Your task to perform on an android device: turn on javascript in the chrome app Image 0: 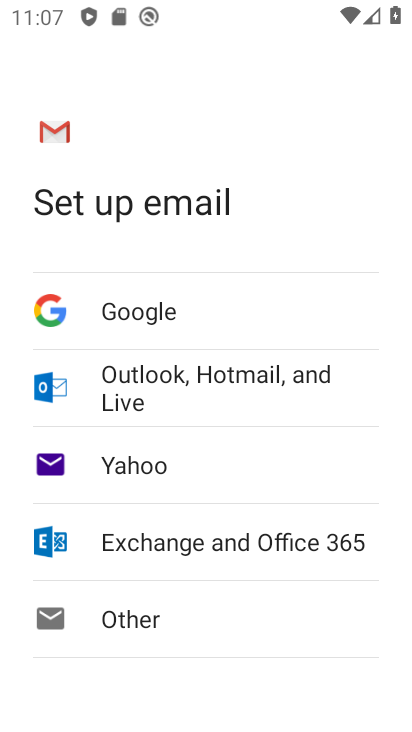
Step 0: press home button
Your task to perform on an android device: turn on javascript in the chrome app Image 1: 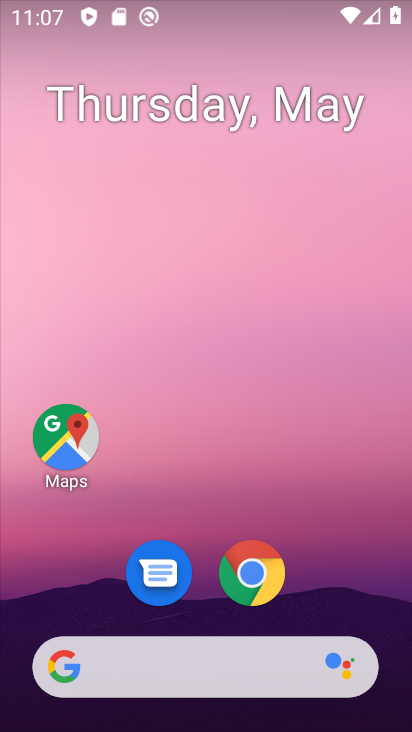
Step 1: click (278, 590)
Your task to perform on an android device: turn on javascript in the chrome app Image 2: 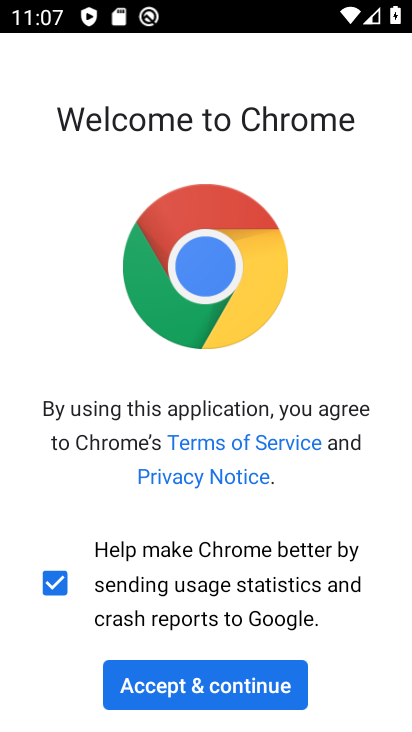
Step 2: click (257, 701)
Your task to perform on an android device: turn on javascript in the chrome app Image 3: 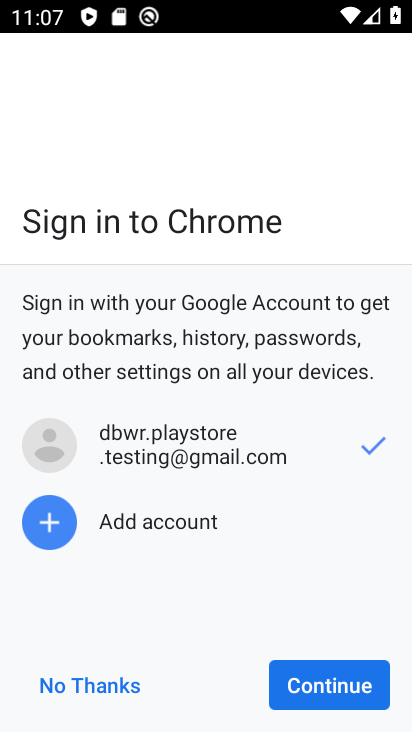
Step 3: click (325, 686)
Your task to perform on an android device: turn on javascript in the chrome app Image 4: 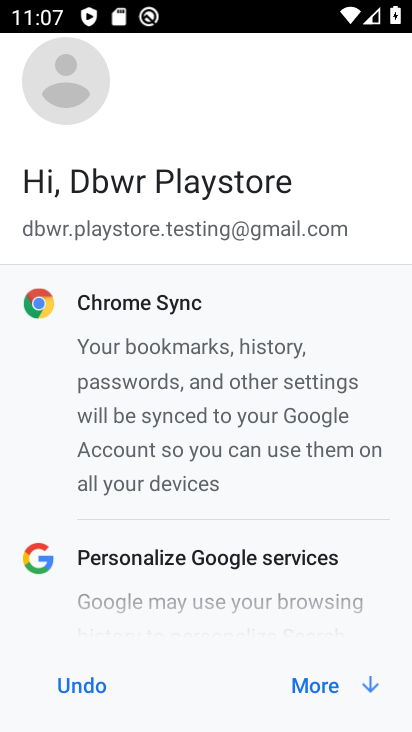
Step 4: click (326, 686)
Your task to perform on an android device: turn on javascript in the chrome app Image 5: 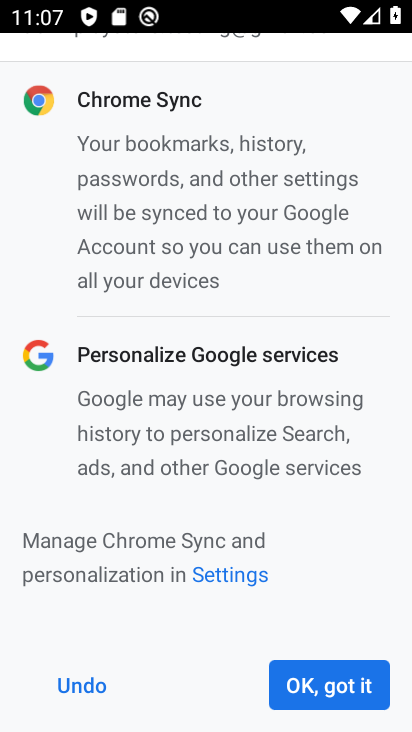
Step 5: click (326, 687)
Your task to perform on an android device: turn on javascript in the chrome app Image 6: 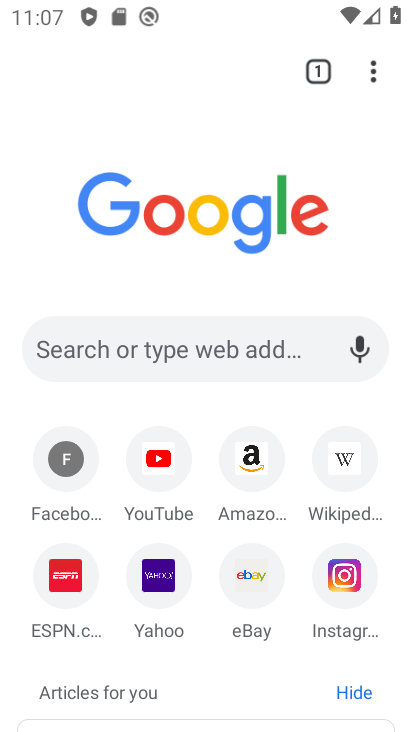
Step 6: drag from (397, 81) to (307, 620)
Your task to perform on an android device: turn on javascript in the chrome app Image 7: 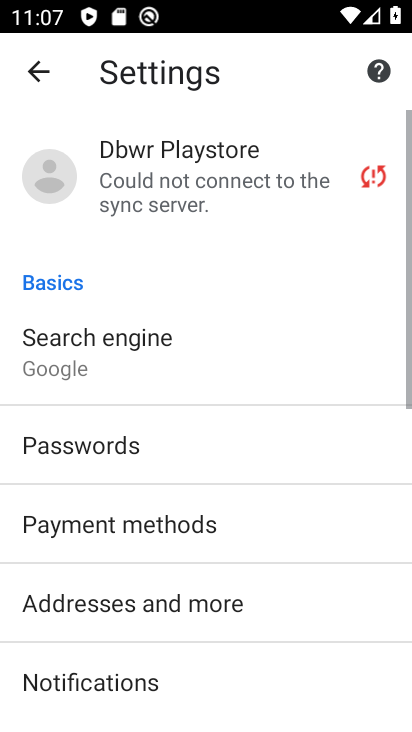
Step 7: drag from (209, 644) to (321, 260)
Your task to perform on an android device: turn on javascript in the chrome app Image 8: 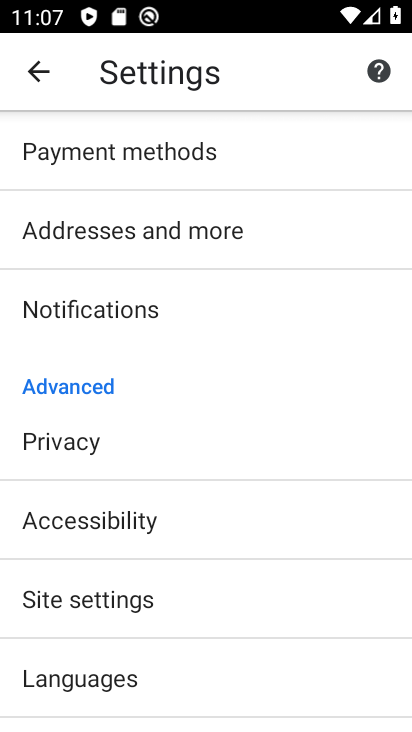
Step 8: click (286, 605)
Your task to perform on an android device: turn on javascript in the chrome app Image 9: 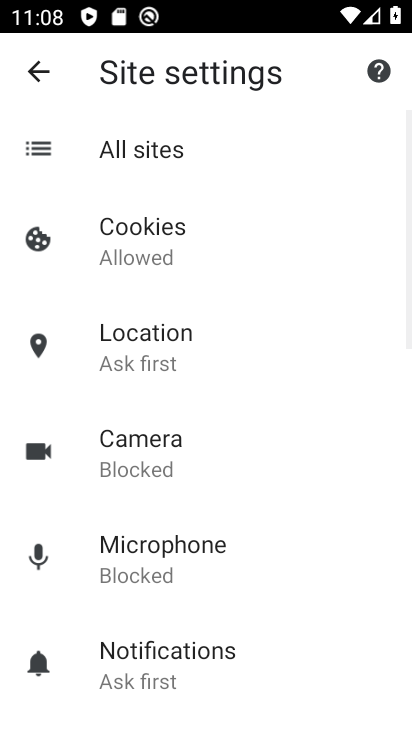
Step 9: drag from (282, 658) to (355, 328)
Your task to perform on an android device: turn on javascript in the chrome app Image 10: 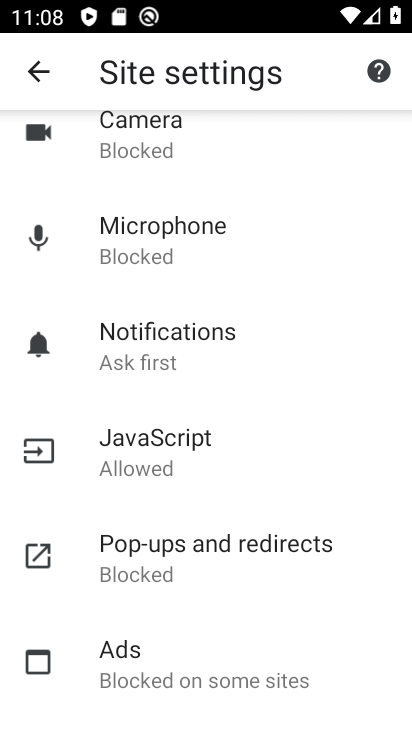
Step 10: click (260, 450)
Your task to perform on an android device: turn on javascript in the chrome app Image 11: 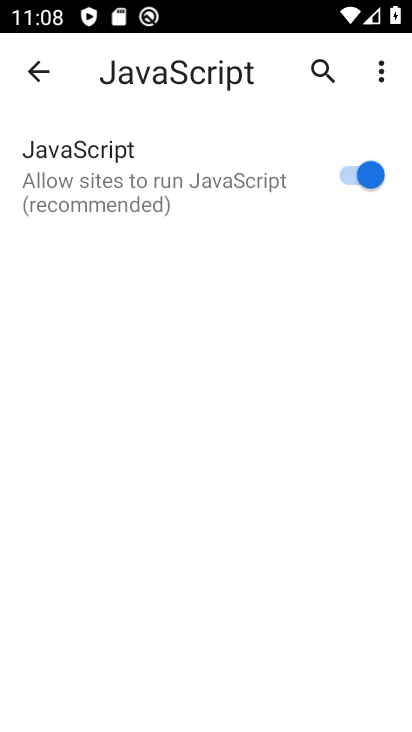
Step 11: task complete